Your task to perform on an android device: Open Google Chrome and open the bookmarks view Image 0: 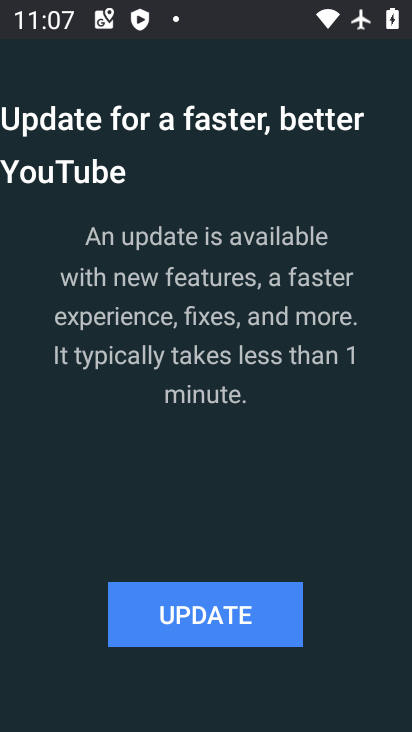
Step 0: press back button
Your task to perform on an android device: Open Google Chrome and open the bookmarks view Image 1: 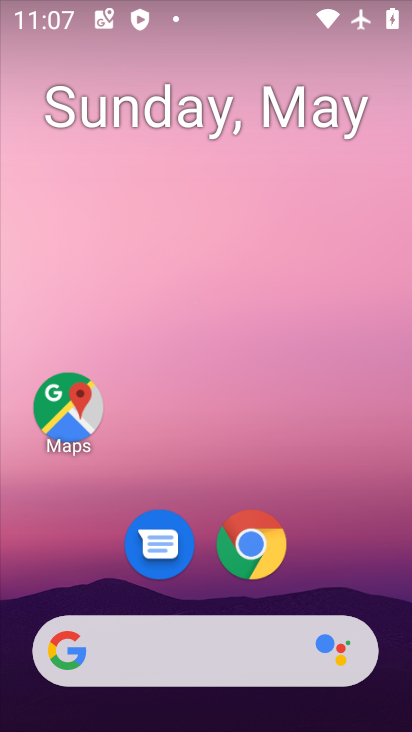
Step 1: click (264, 540)
Your task to perform on an android device: Open Google Chrome and open the bookmarks view Image 2: 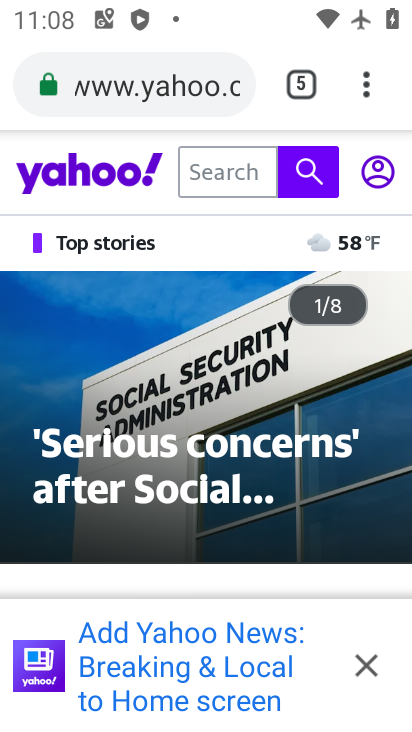
Step 2: click (369, 81)
Your task to perform on an android device: Open Google Chrome and open the bookmarks view Image 3: 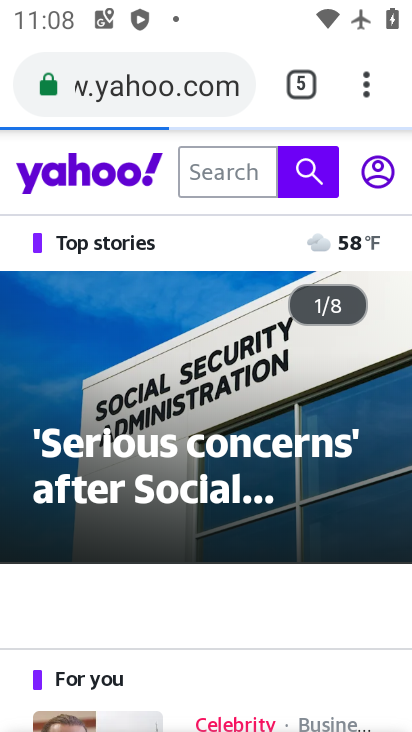
Step 3: click (360, 83)
Your task to perform on an android device: Open Google Chrome and open the bookmarks view Image 4: 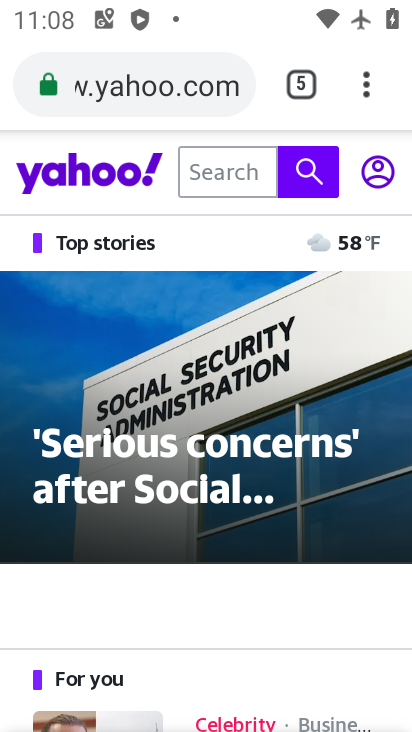
Step 4: click (358, 86)
Your task to perform on an android device: Open Google Chrome and open the bookmarks view Image 5: 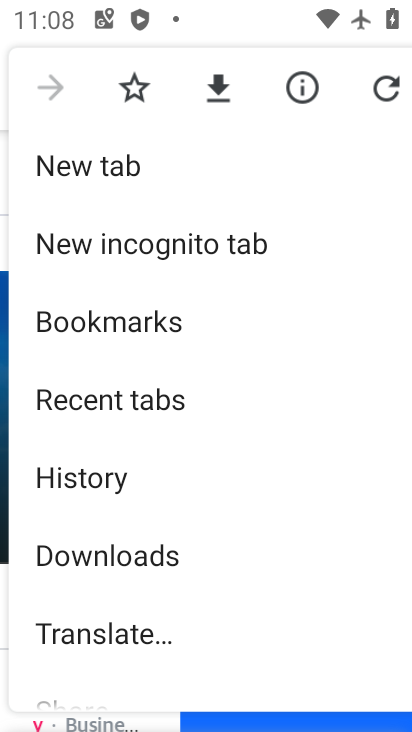
Step 5: click (173, 325)
Your task to perform on an android device: Open Google Chrome and open the bookmarks view Image 6: 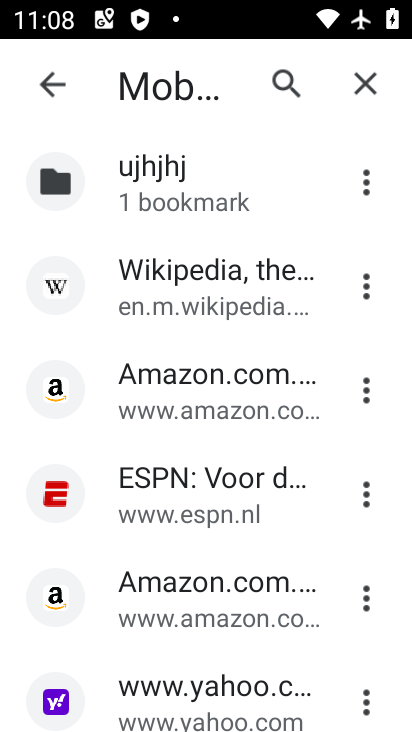
Step 6: task complete